Your task to perform on an android device: turn smart compose on in the gmail app Image 0: 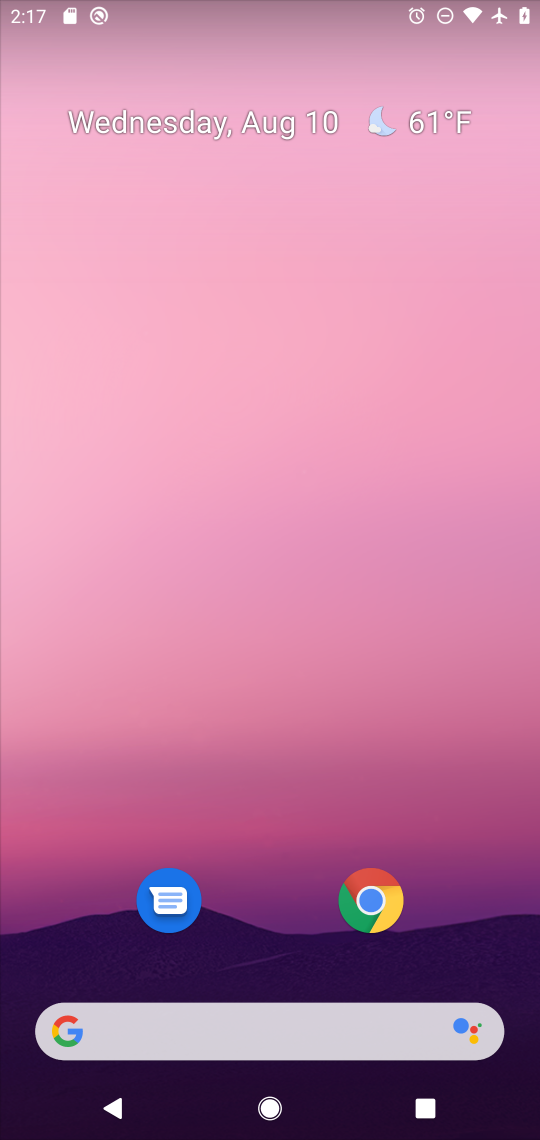
Step 0: drag from (283, 877) to (276, 21)
Your task to perform on an android device: turn smart compose on in the gmail app Image 1: 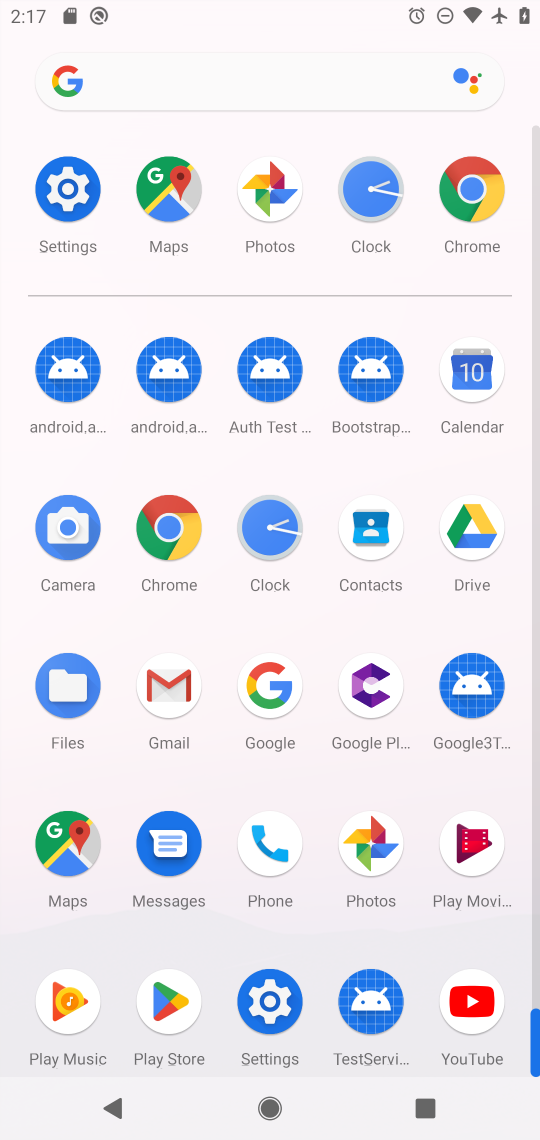
Step 1: click (170, 672)
Your task to perform on an android device: turn smart compose on in the gmail app Image 2: 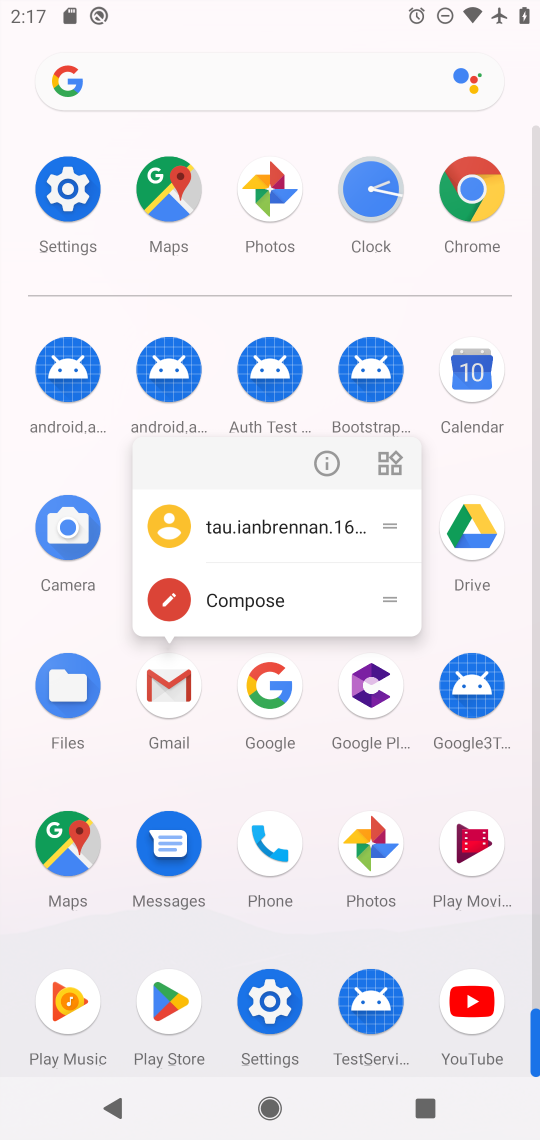
Step 2: click (178, 687)
Your task to perform on an android device: turn smart compose on in the gmail app Image 3: 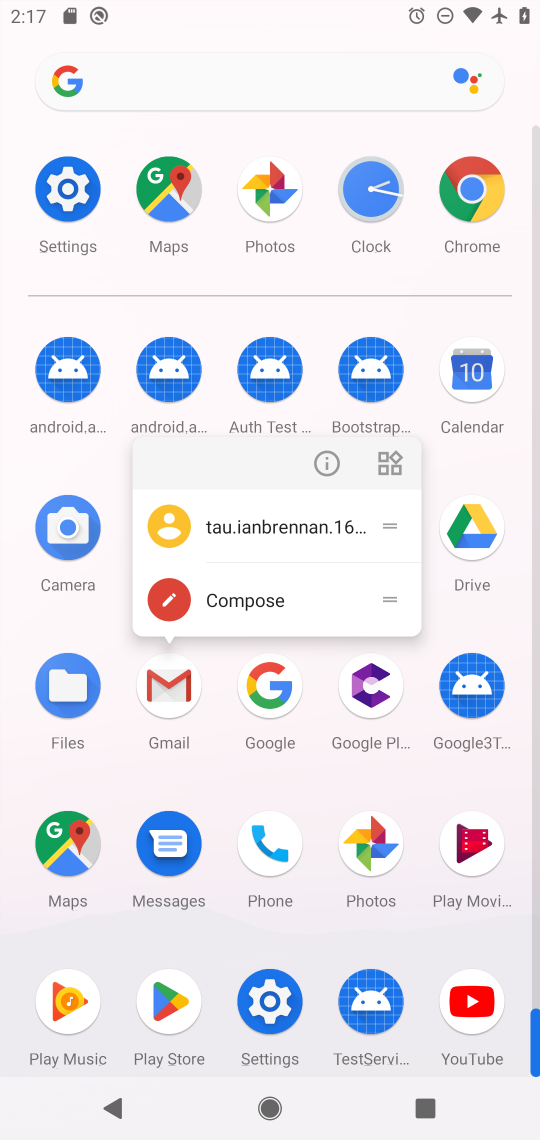
Step 3: click (174, 674)
Your task to perform on an android device: turn smart compose on in the gmail app Image 4: 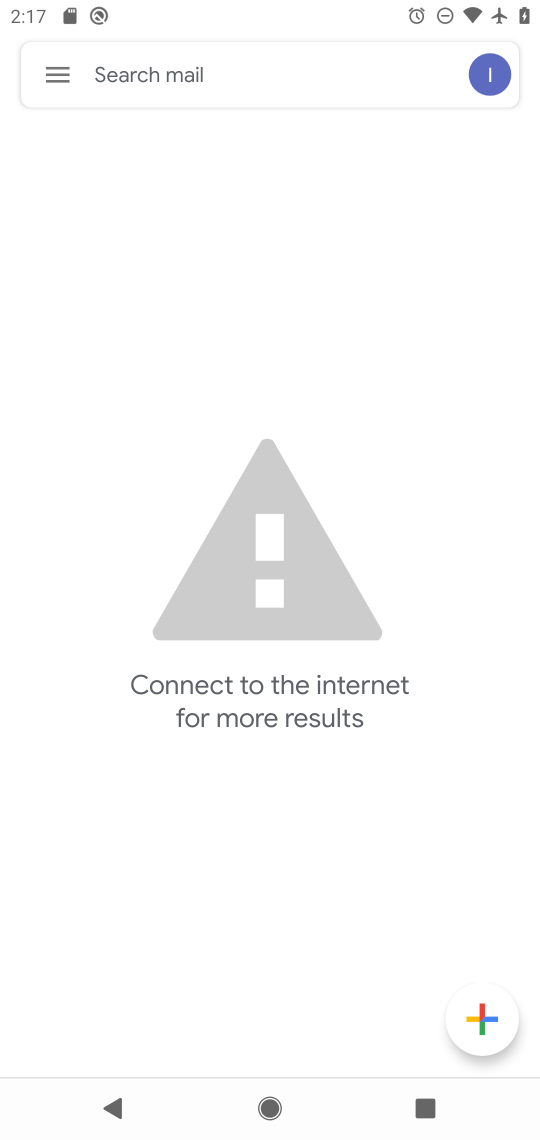
Step 4: click (56, 71)
Your task to perform on an android device: turn smart compose on in the gmail app Image 5: 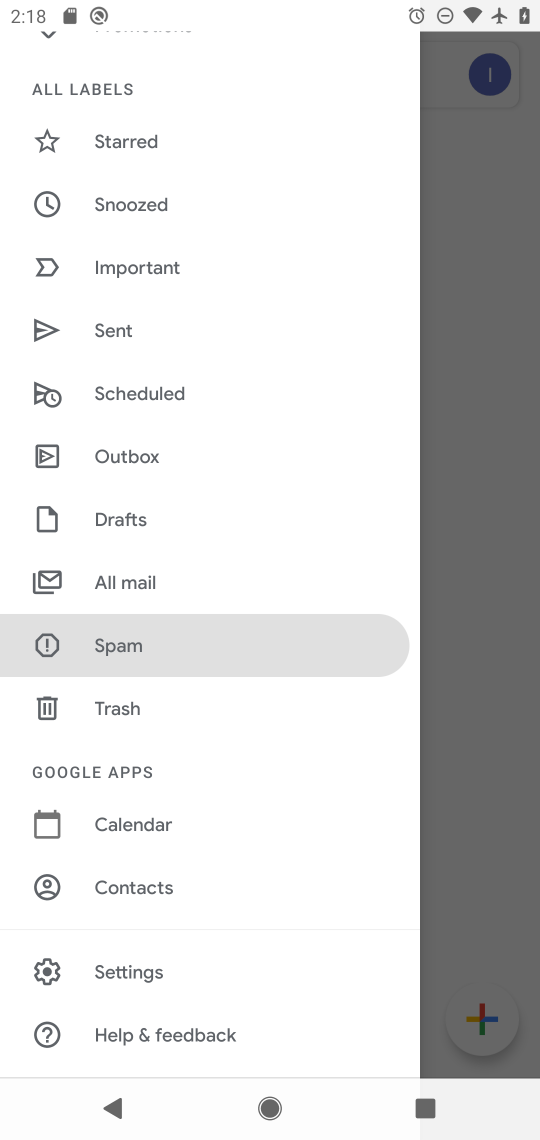
Step 5: click (168, 971)
Your task to perform on an android device: turn smart compose on in the gmail app Image 6: 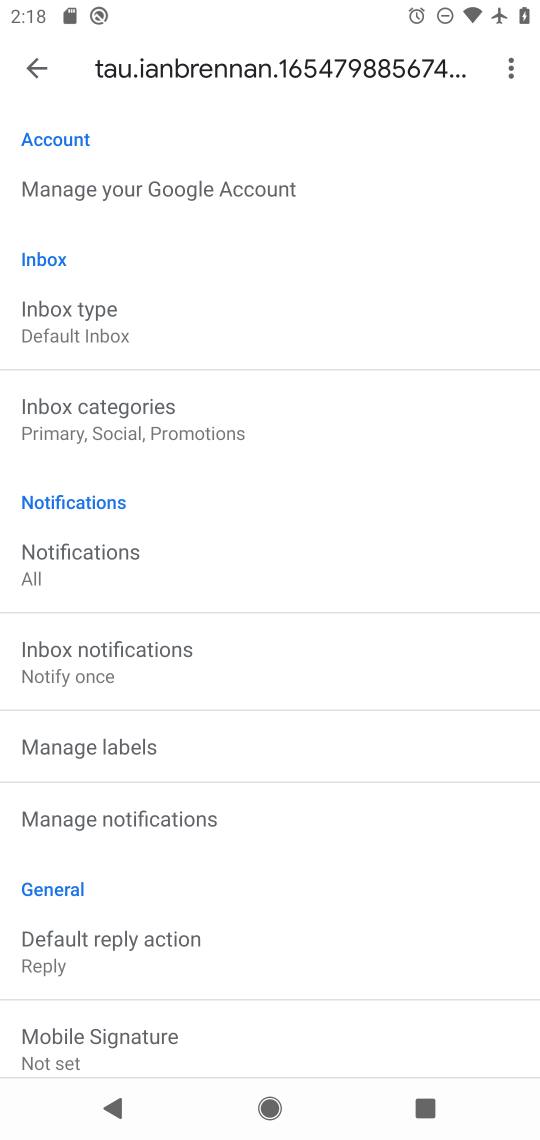
Step 6: task complete